Your task to perform on an android device: allow notifications from all sites in the chrome app Image 0: 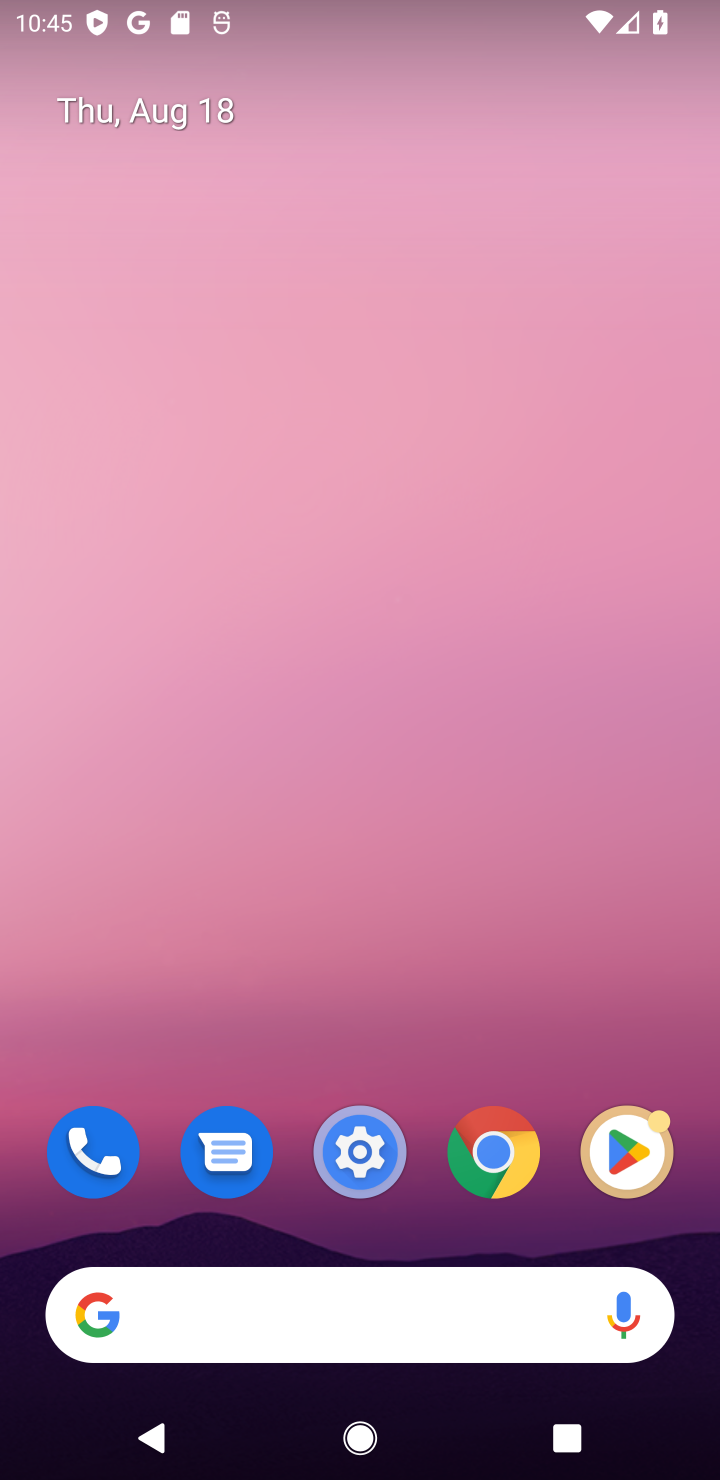
Step 0: drag from (388, 709) to (561, 13)
Your task to perform on an android device: allow notifications from all sites in the chrome app Image 1: 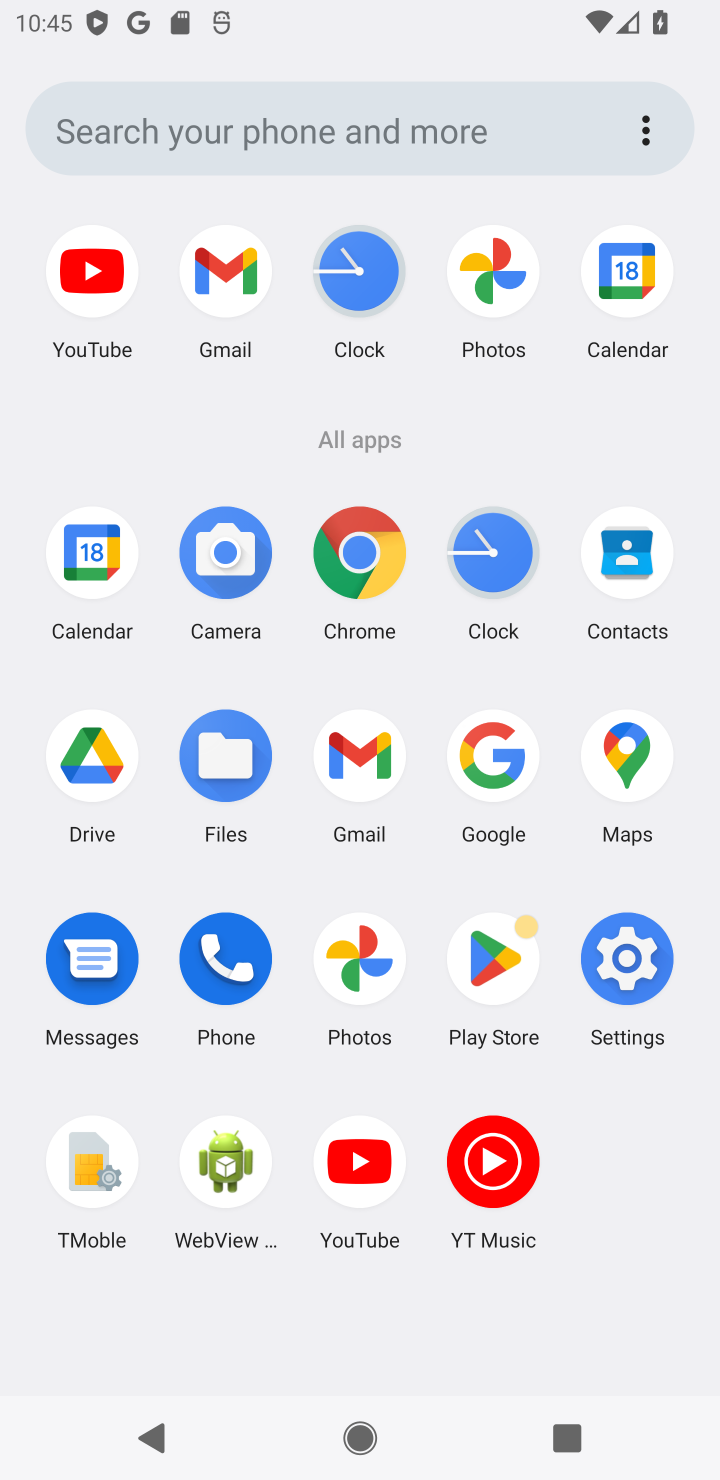
Step 1: click (365, 548)
Your task to perform on an android device: allow notifications from all sites in the chrome app Image 2: 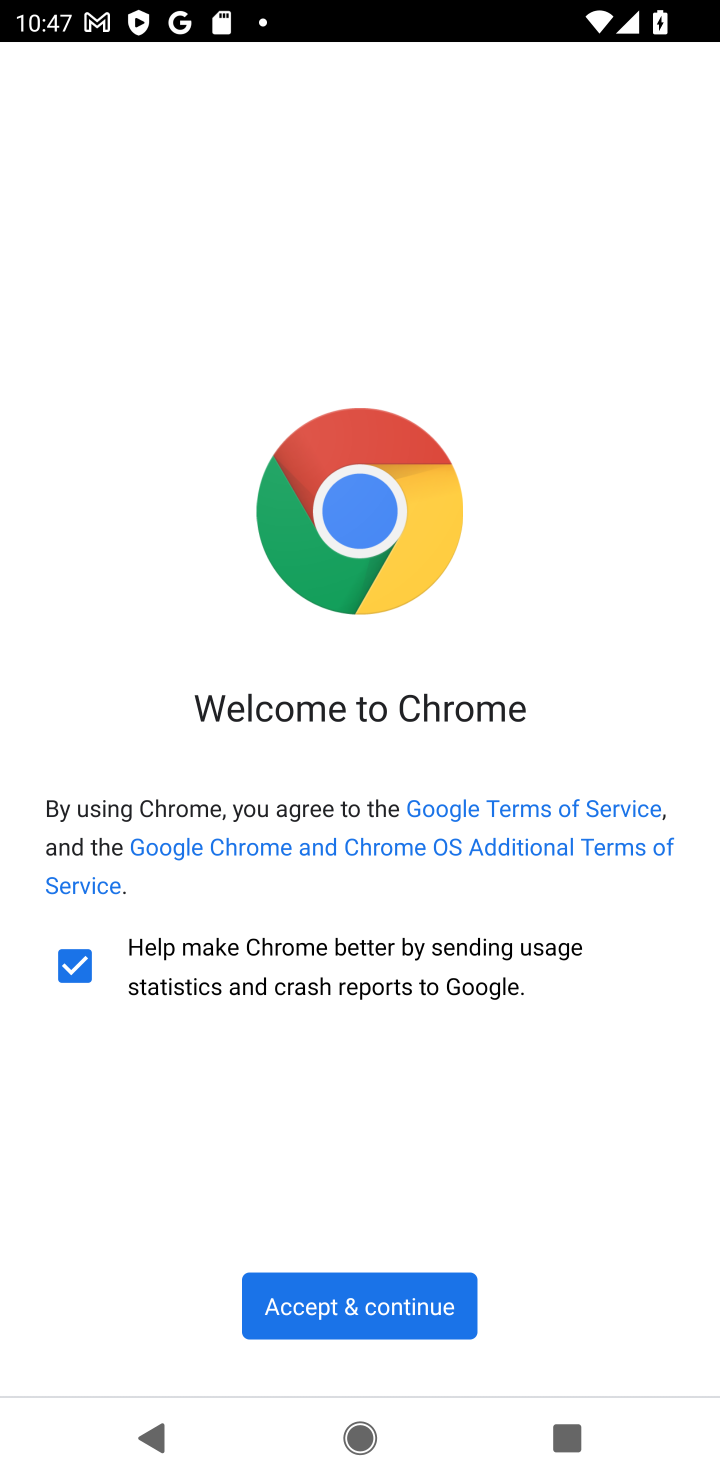
Step 2: click (378, 1328)
Your task to perform on an android device: allow notifications from all sites in the chrome app Image 3: 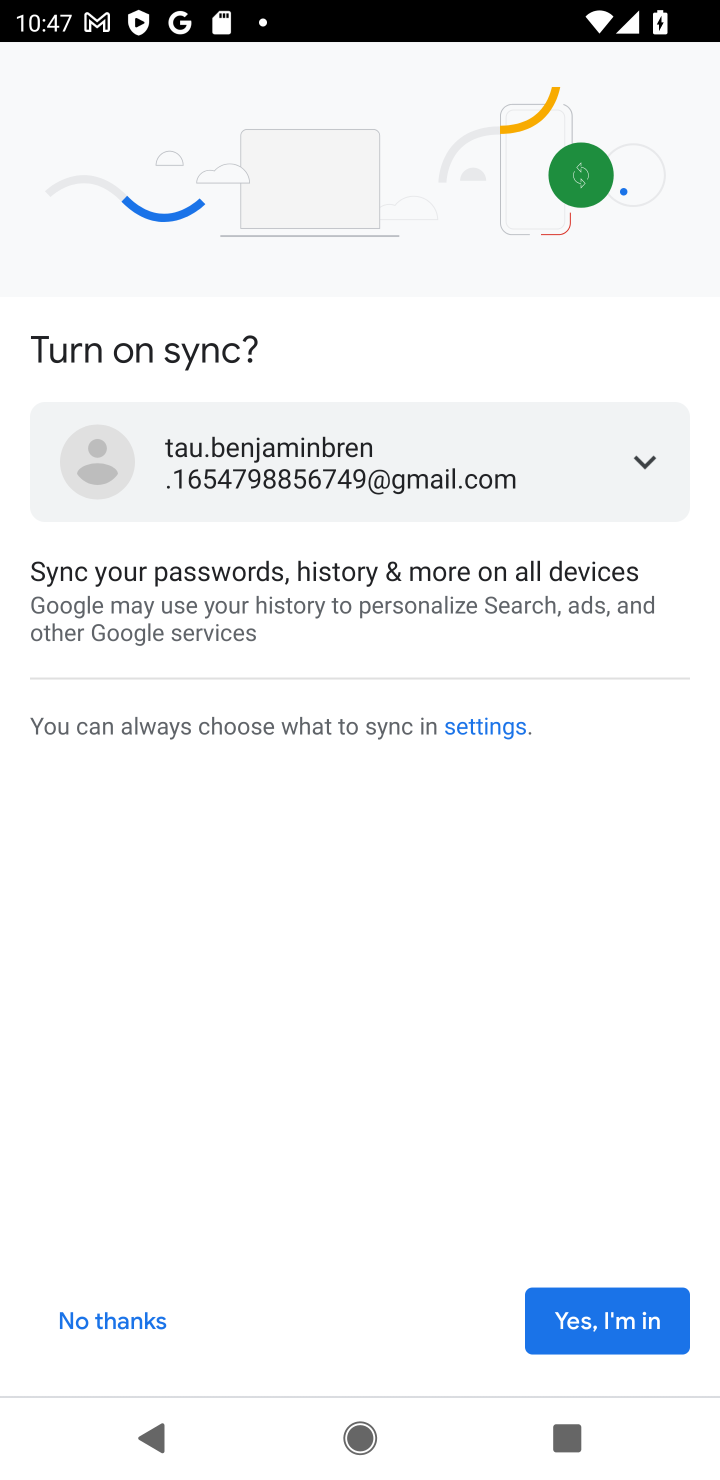
Step 3: click (621, 1328)
Your task to perform on an android device: allow notifications from all sites in the chrome app Image 4: 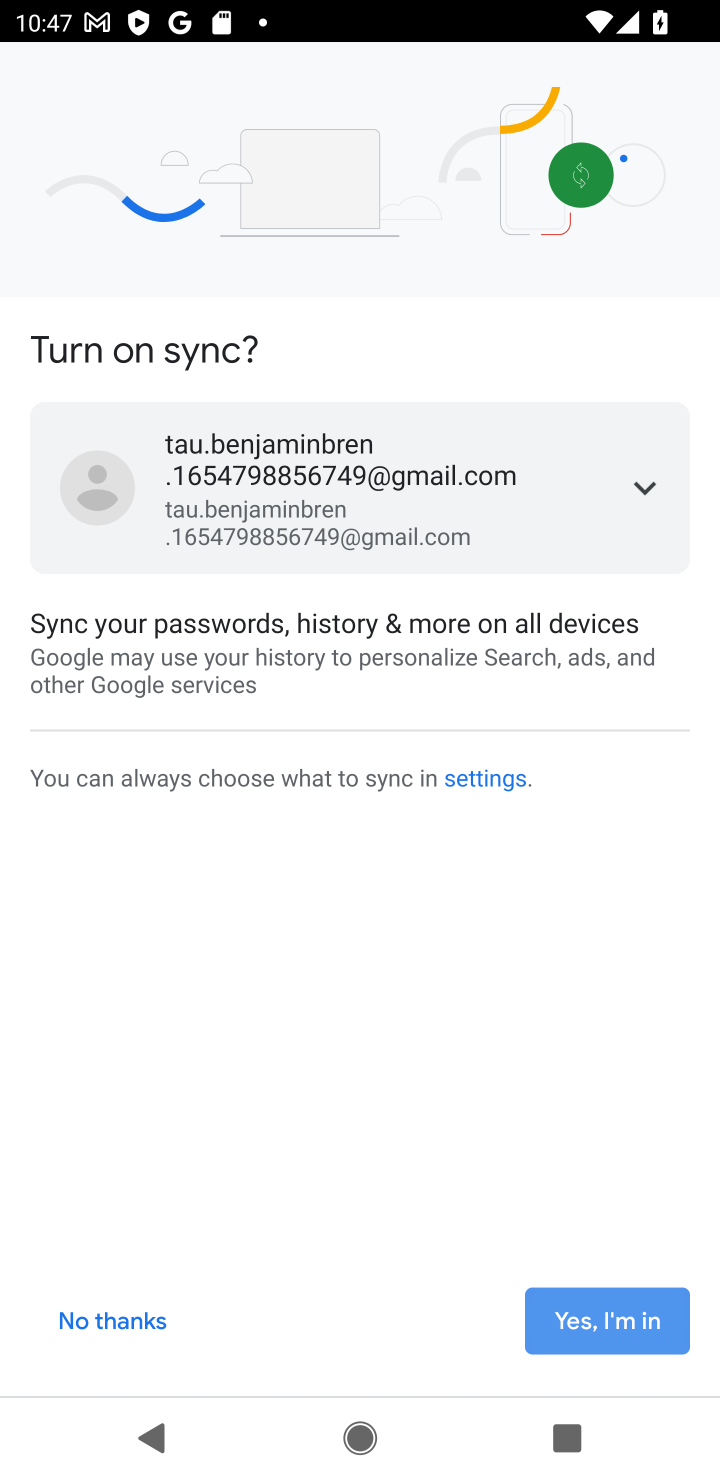
Step 4: click (621, 1328)
Your task to perform on an android device: allow notifications from all sites in the chrome app Image 5: 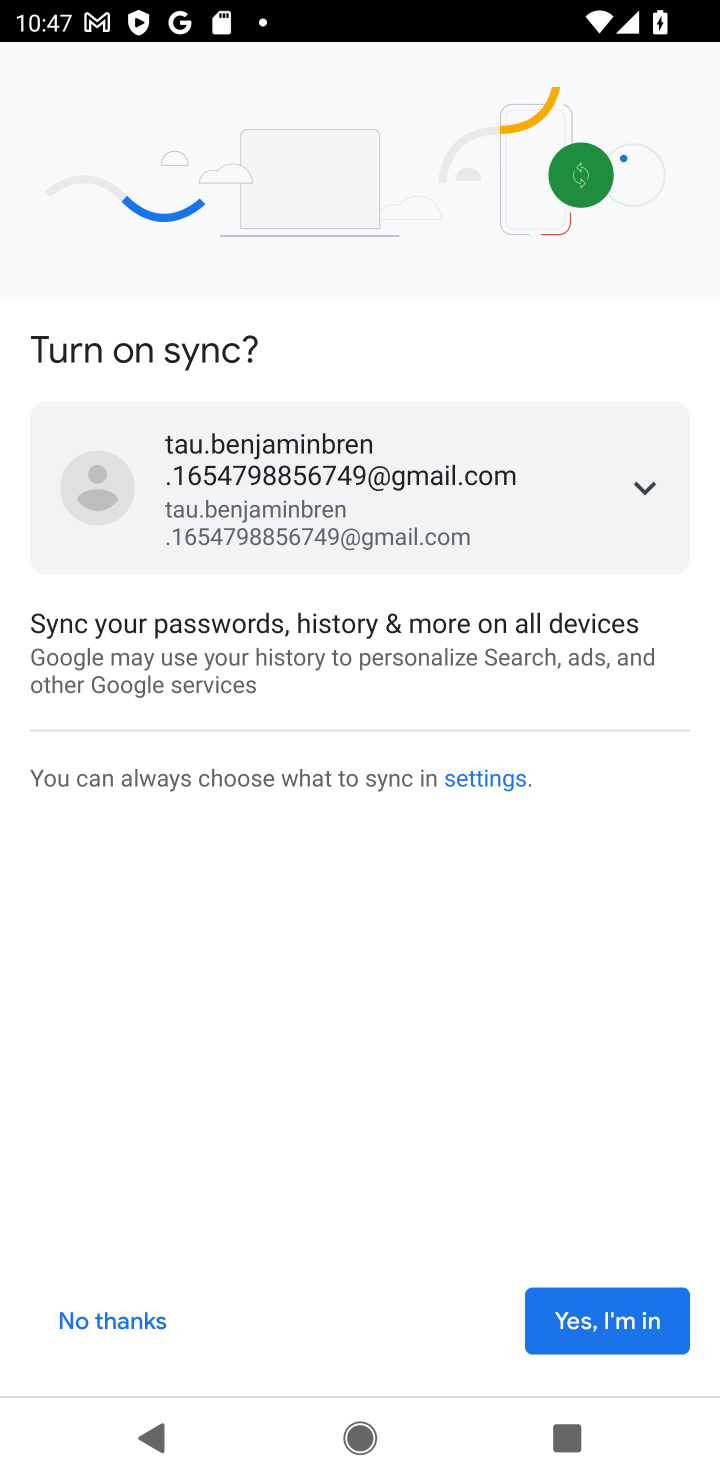
Step 5: click (621, 1328)
Your task to perform on an android device: allow notifications from all sites in the chrome app Image 6: 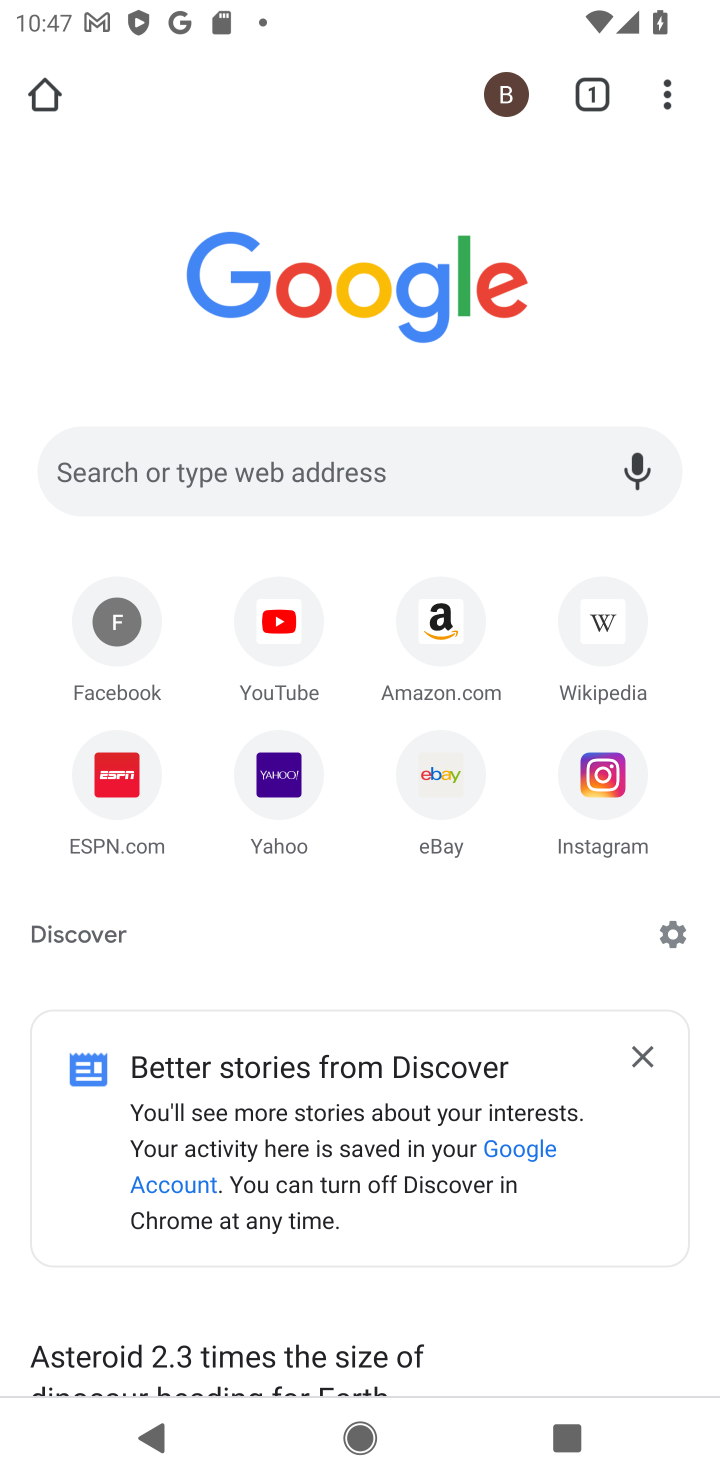
Step 6: drag from (669, 91) to (365, 886)
Your task to perform on an android device: allow notifications from all sites in the chrome app Image 7: 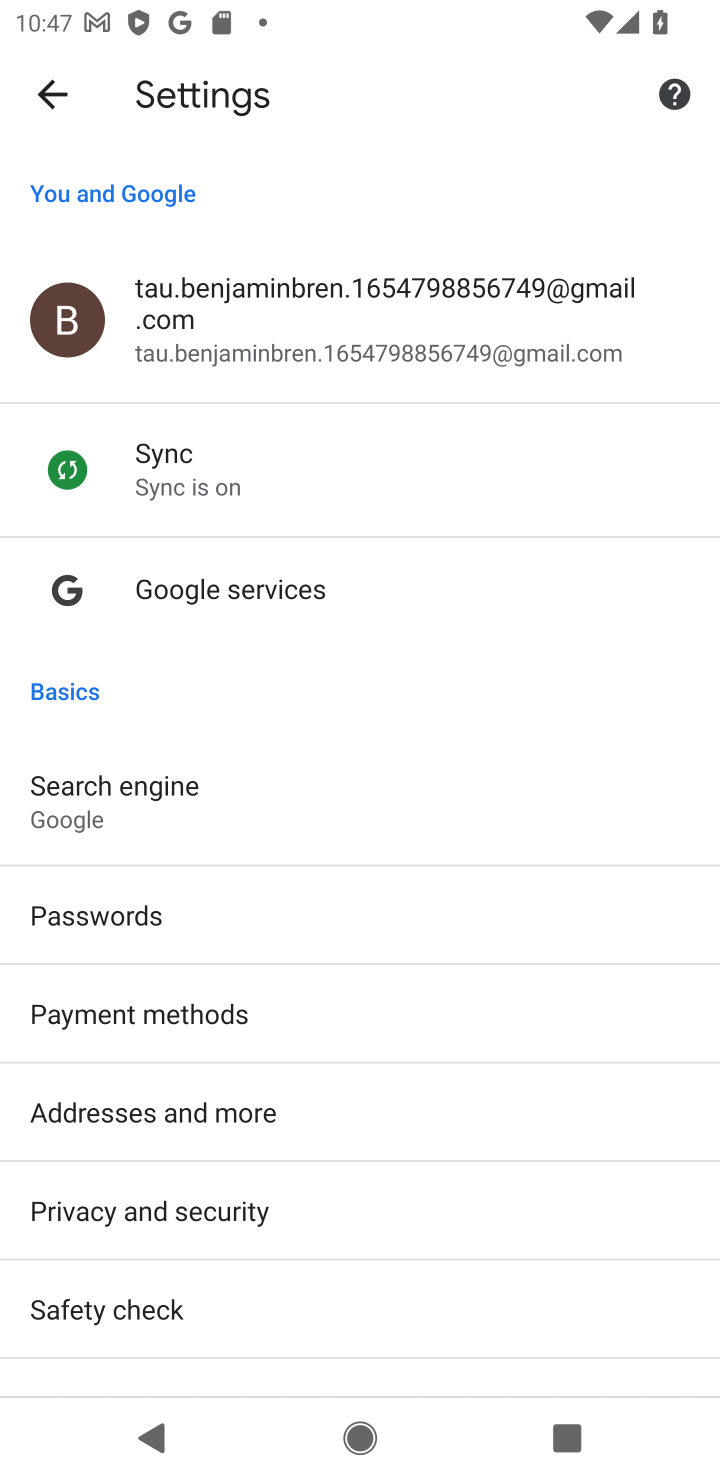
Step 7: drag from (222, 1092) to (392, 353)
Your task to perform on an android device: allow notifications from all sites in the chrome app Image 8: 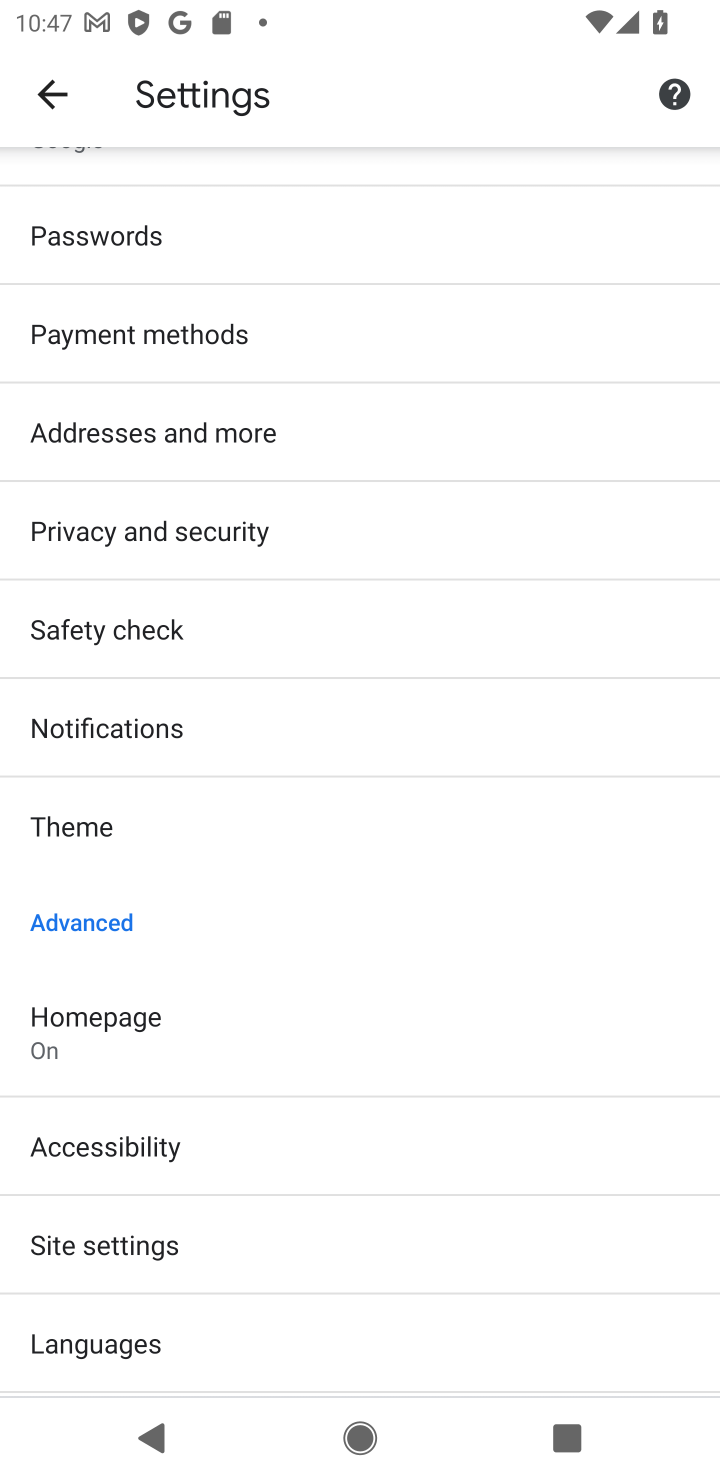
Step 8: click (110, 1245)
Your task to perform on an android device: allow notifications from all sites in the chrome app Image 9: 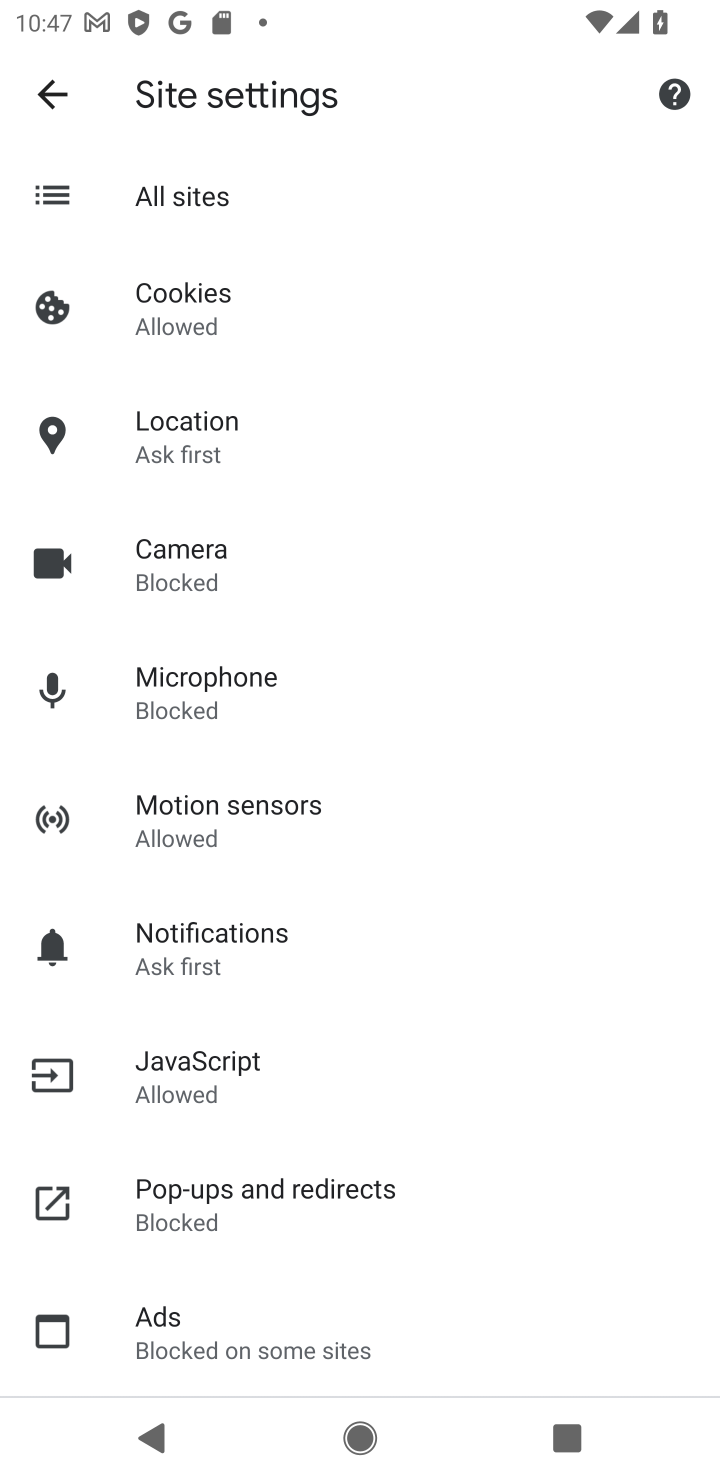
Step 9: click (186, 200)
Your task to perform on an android device: allow notifications from all sites in the chrome app Image 10: 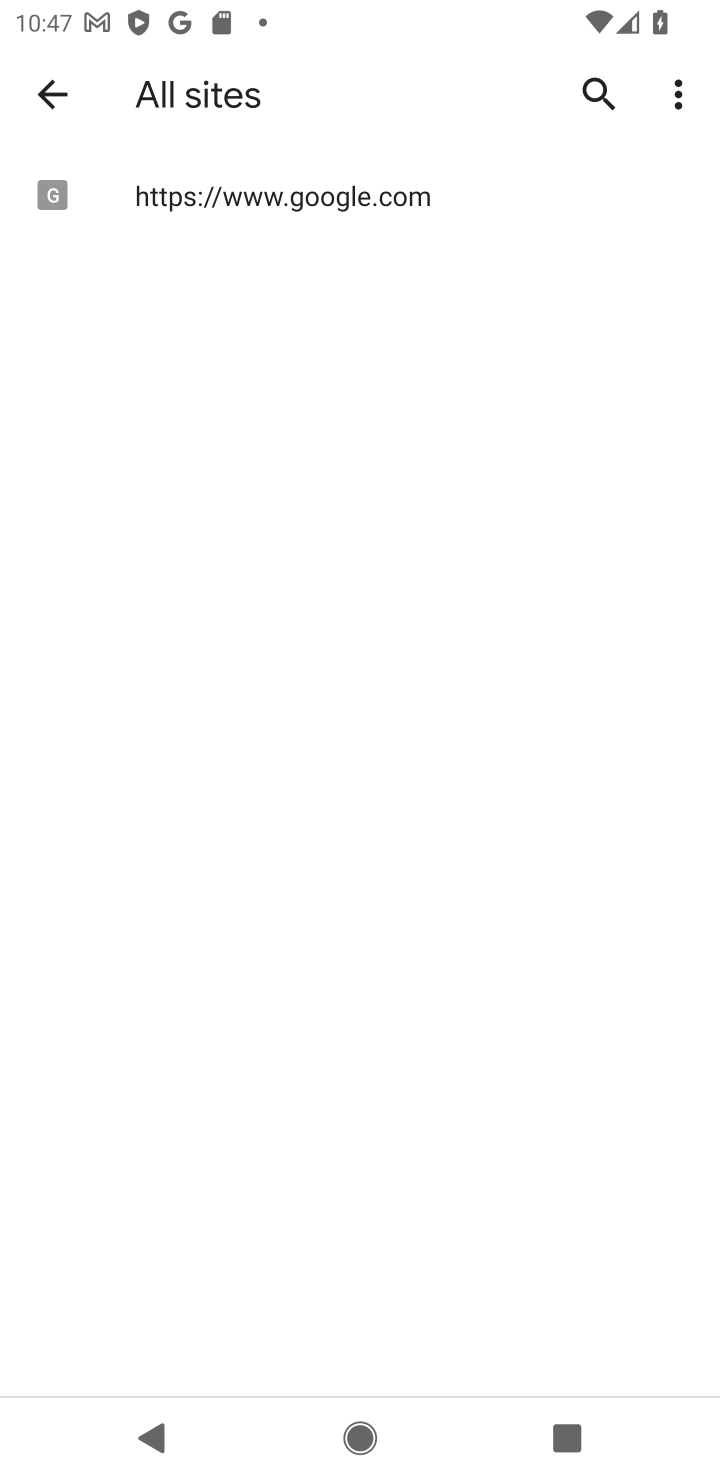
Step 10: click (319, 207)
Your task to perform on an android device: allow notifications from all sites in the chrome app Image 11: 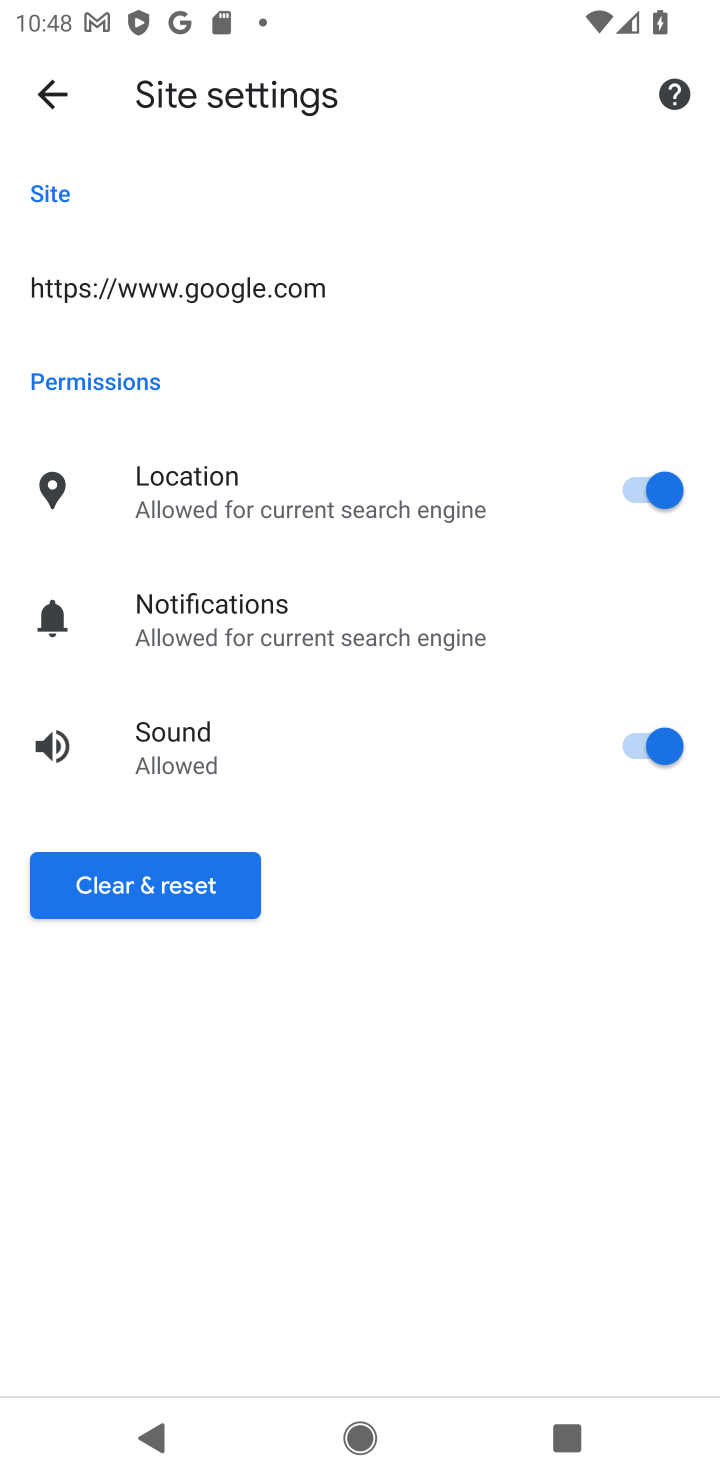
Step 11: click (248, 600)
Your task to perform on an android device: allow notifications from all sites in the chrome app Image 12: 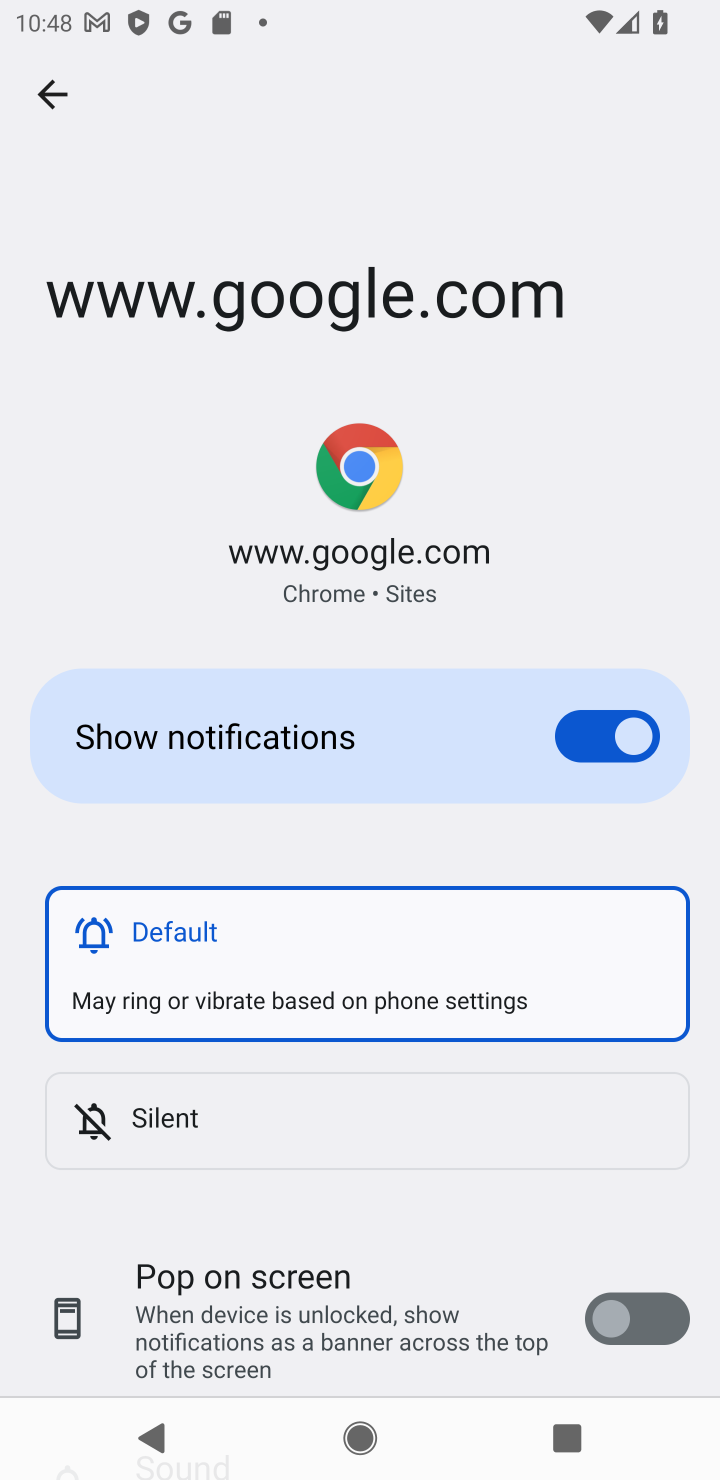
Step 12: task complete